Your task to perform on an android device: Open Google Chrome and click the shortcut for Amazon.com Image 0: 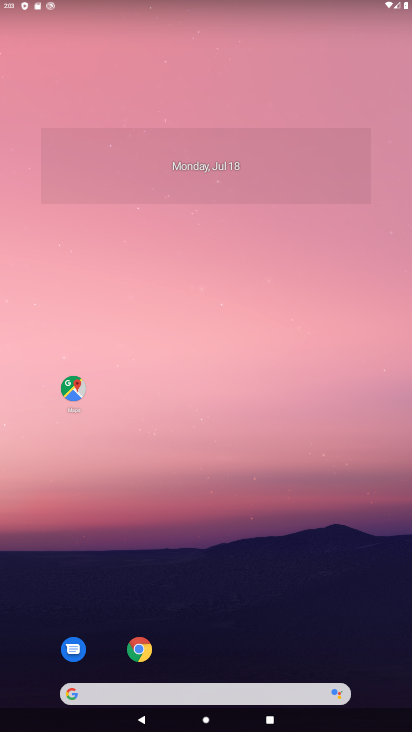
Step 0: click (147, 653)
Your task to perform on an android device: Open Google Chrome and click the shortcut for Amazon.com Image 1: 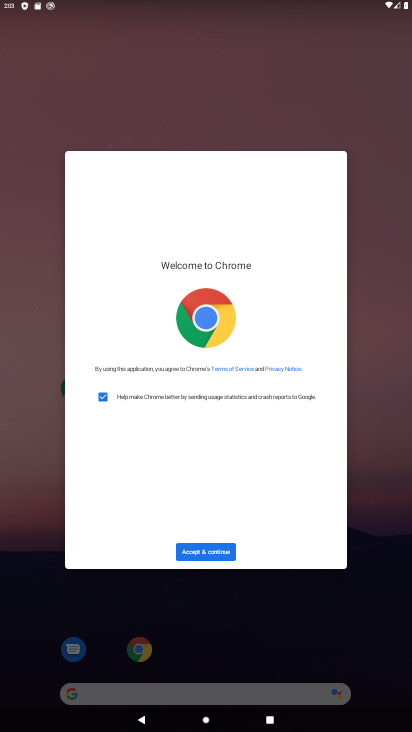
Step 1: click (203, 553)
Your task to perform on an android device: Open Google Chrome and click the shortcut for Amazon.com Image 2: 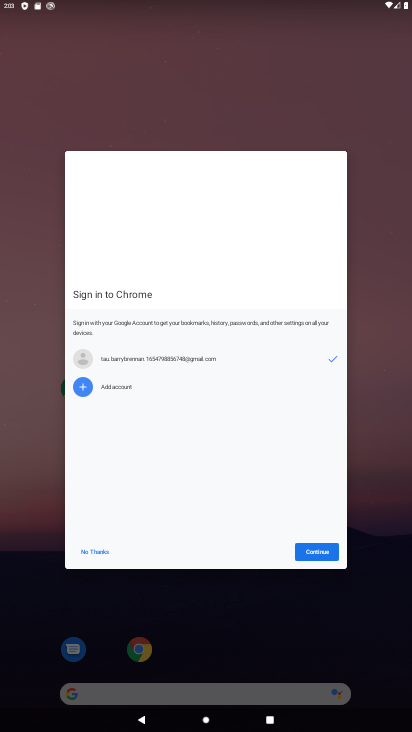
Step 2: click (308, 551)
Your task to perform on an android device: Open Google Chrome and click the shortcut for Amazon.com Image 3: 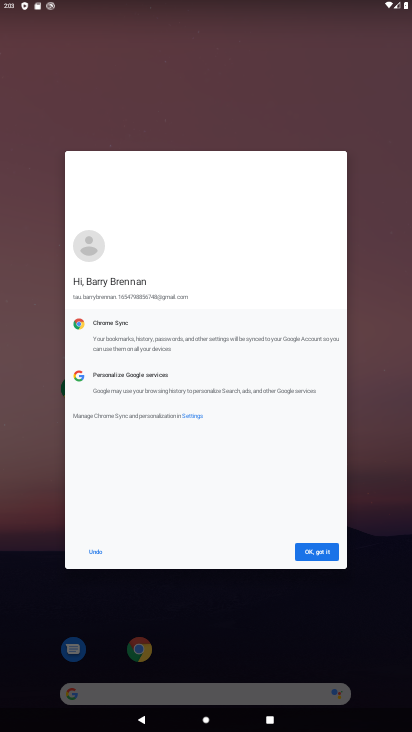
Step 3: click (311, 550)
Your task to perform on an android device: Open Google Chrome and click the shortcut for Amazon.com Image 4: 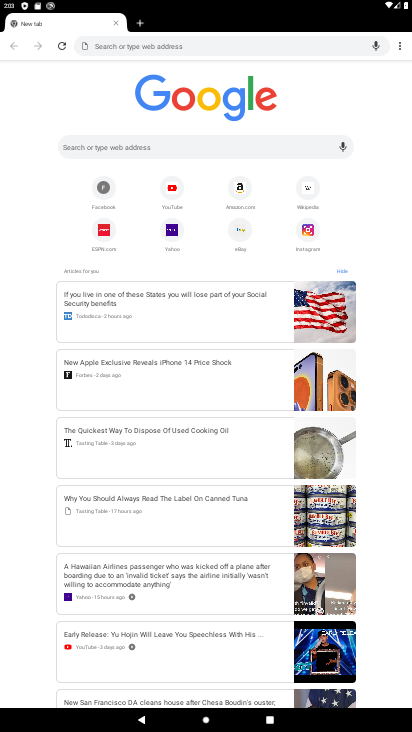
Step 4: click (244, 192)
Your task to perform on an android device: Open Google Chrome and click the shortcut for Amazon.com Image 5: 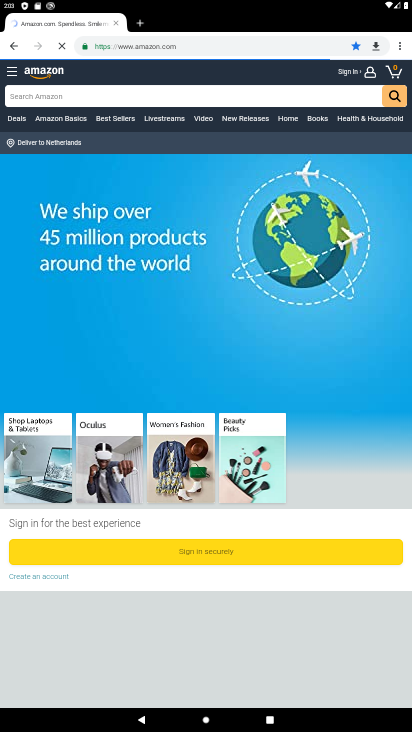
Step 5: task complete